Your task to perform on an android device: check storage Image 0: 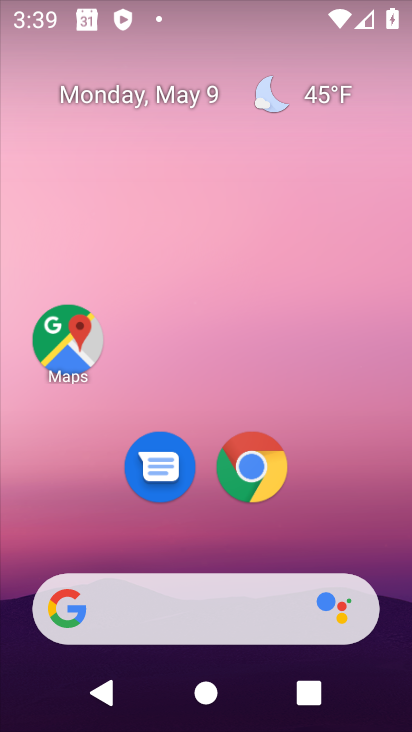
Step 0: drag from (312, 333) to (346, 53)
Your task to perform on an android device: check storage Image 1: 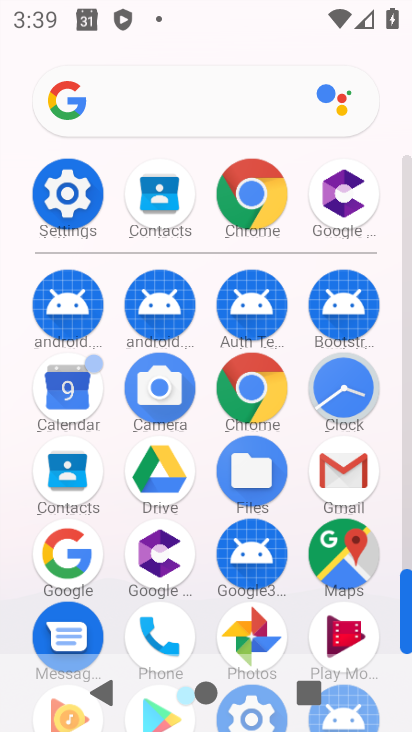
Step 1: click (82, 178)
Your task to perform on an android device: check storage Image 2: 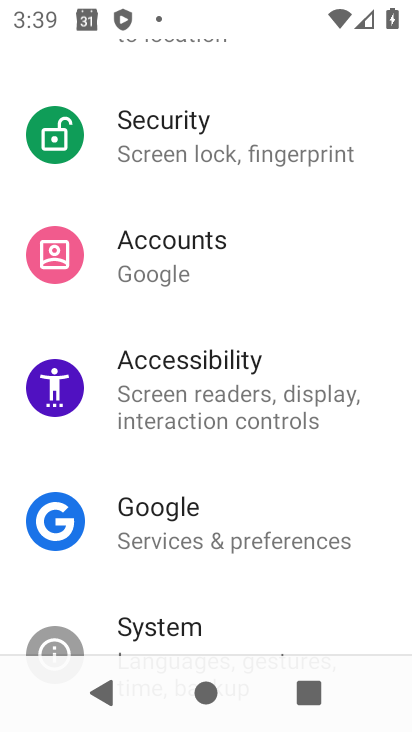
Step 2: drag from (196, 238) to (197, 575)
Your task to perform on an android device: check storage Image 3: 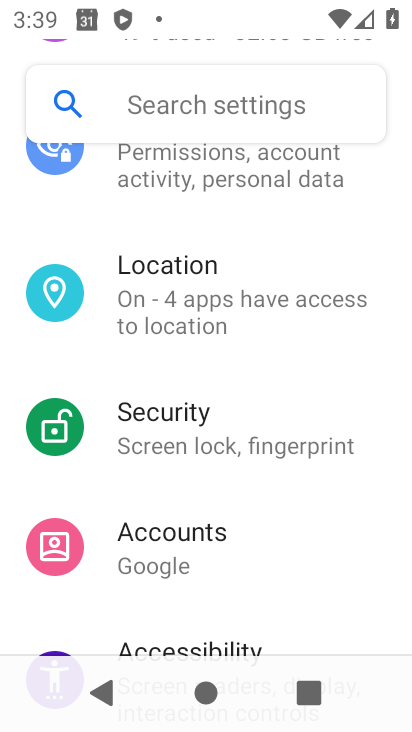
Step 3: drag from (245, 319) to (271, 585)
Your task to perform on an android device: check storage Image 4: 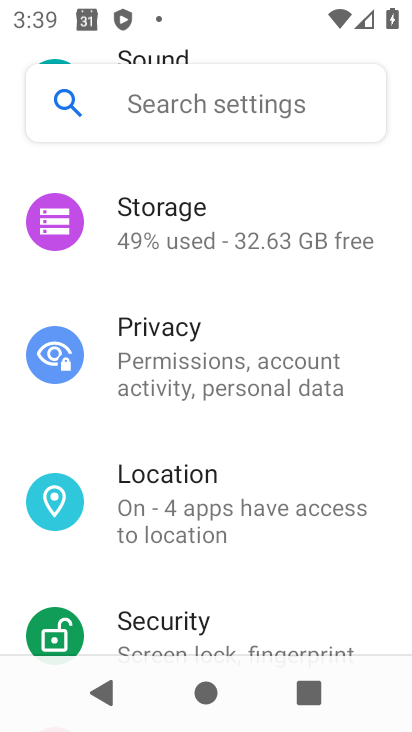
Step 4: click (230, 235)
Your task to perform on an android device: check storage Image 5: 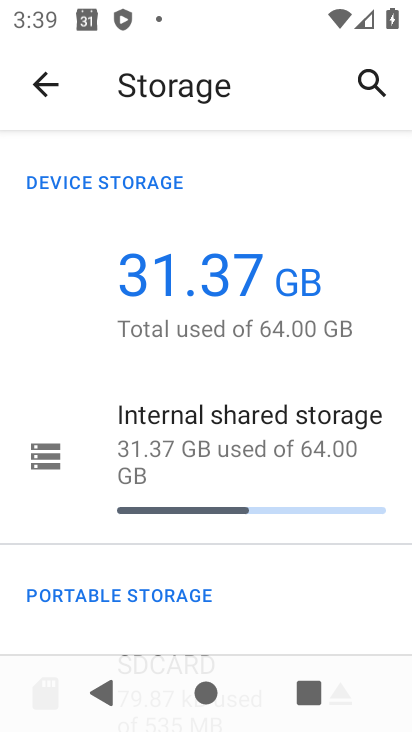
Step 5: task complete